Your task to perform on an android device: change the clock display to digital Image 0: 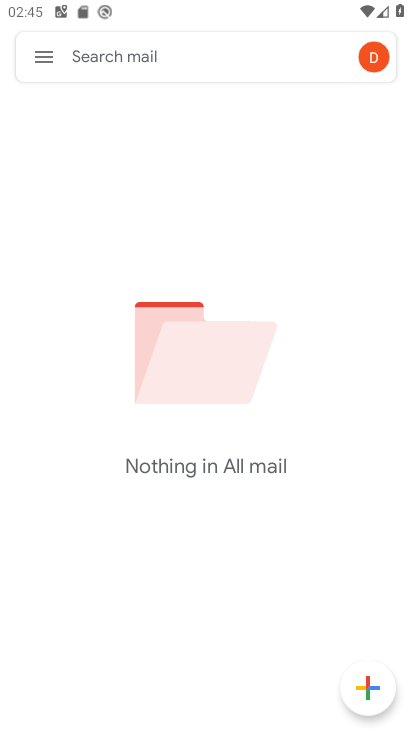
Step 0: press back button
Your task to perform on an android device: change the clock display to digital Image 1: 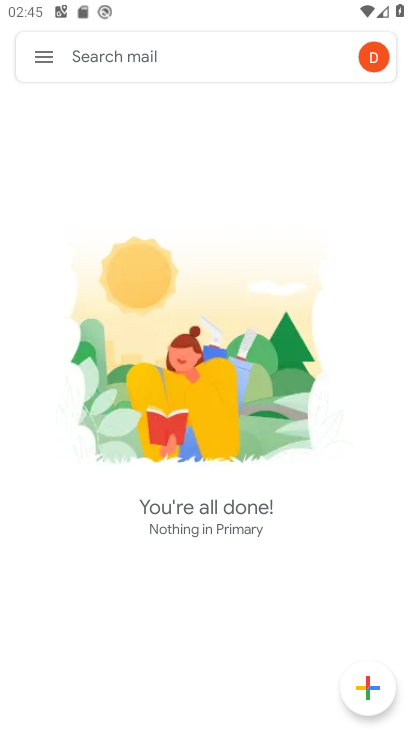
Step 1: press back button
Your task to perform on an android device: change the clock display to digital Image 2: 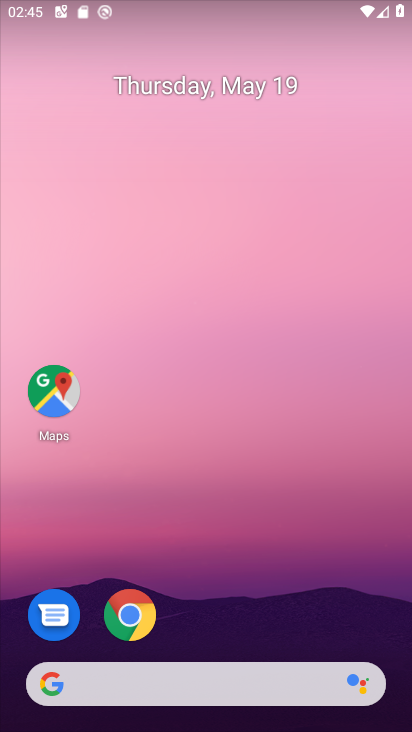
Step 2: drag from (264, 543) to (252, 24)
Your task to perform on an android device: change the clock display to digital Image 3: 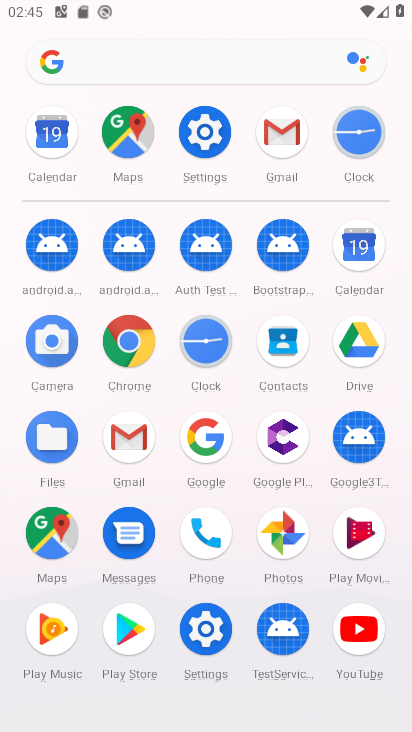
Step 3: drag from (12, 528) to (23, 249)
Your task to perform on an android device: change the clock display to digital Image 4: 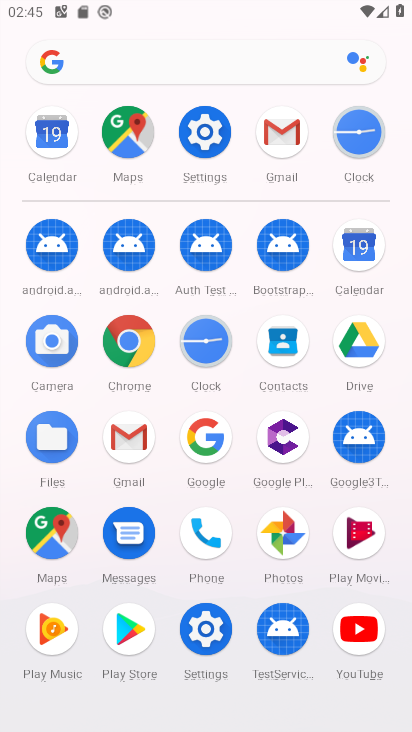
Step 4: click (206, 724)
Your task to perform on an android device: change the clock display to digital Image 5: 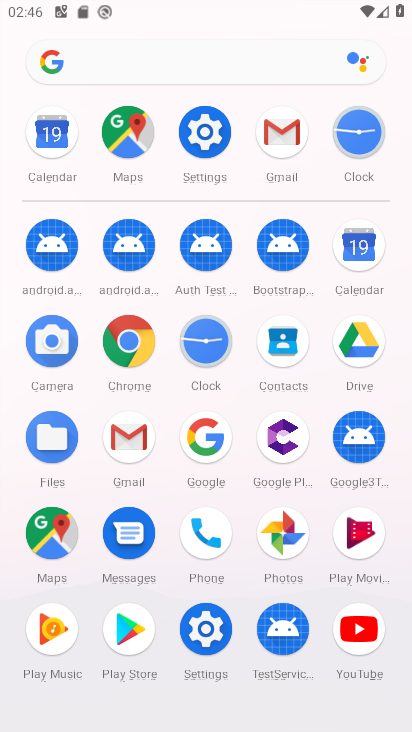
Step 5: click (205, 340)
Your task to perform on an android device: change the clock display to digital Image 6: 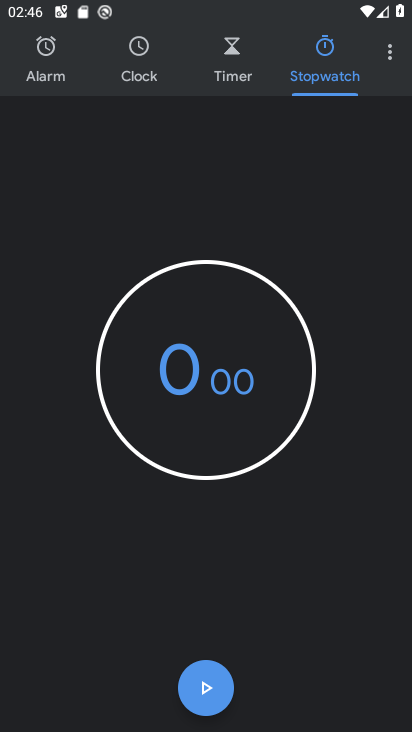
Step 6: task complete